Your task to perform on an android device: What's the weather going to be this weekend? Image 0: 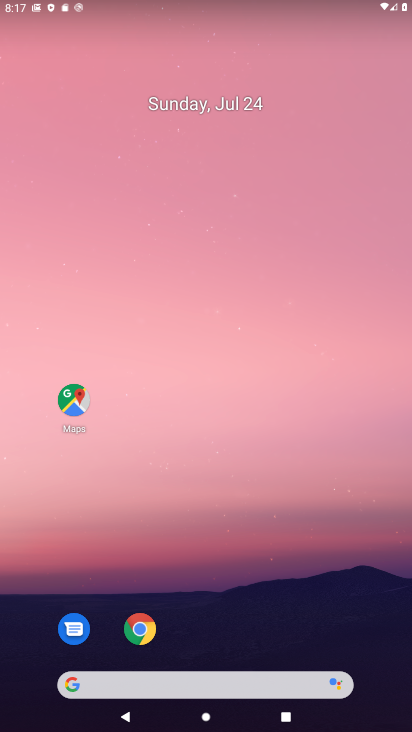
Step 0: click (209, 680)
Your task to perform on an android device: What's the weather going to be this weekend? Image 1: 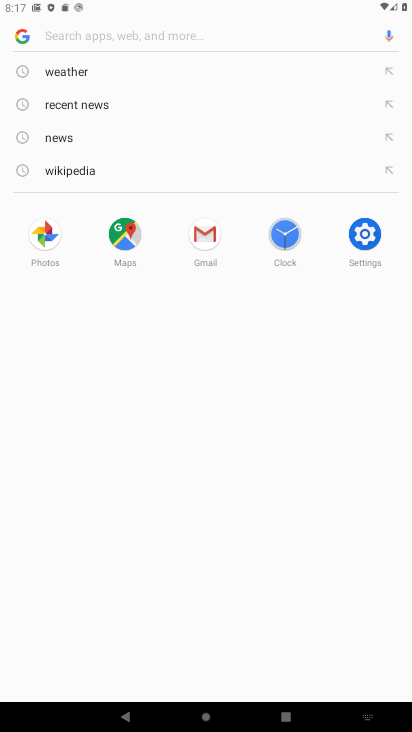
Step 1: click (87, 79)
Your task to perform on an android device: What's the weather going to be this weekend? Image 2: 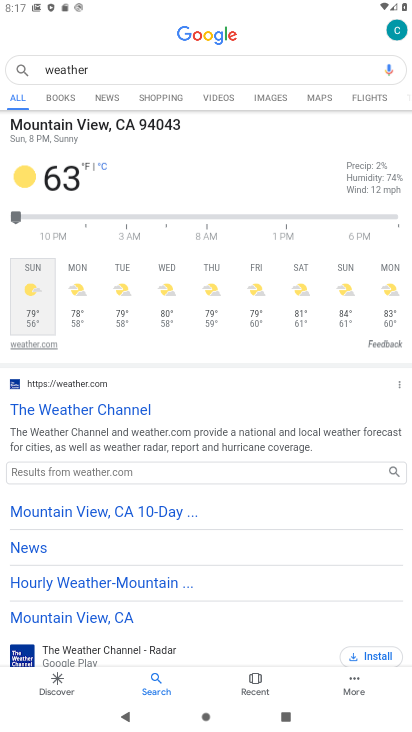
Step 2: task complete